Your task to perform on an android device: Go to Wikipedia Image 0: 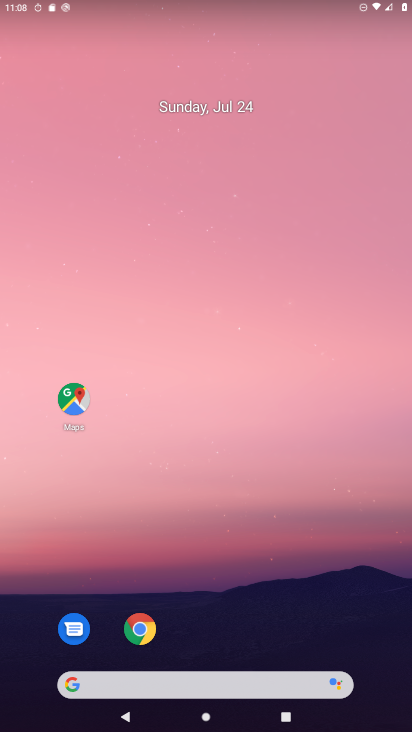
Step 0: drag from (201, 662) to (258, 156)
Your task to perform on an android device: Go to Wikipedia Image 1: 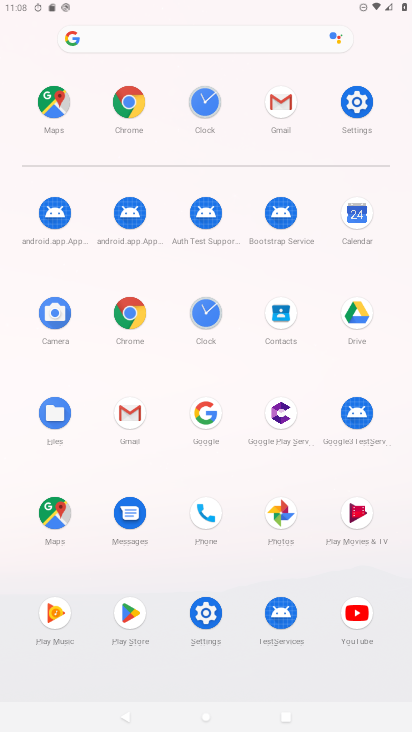
Step 1: click (125, 324)
Your task to perform on an android device: Go to Wikipedia Image 2: 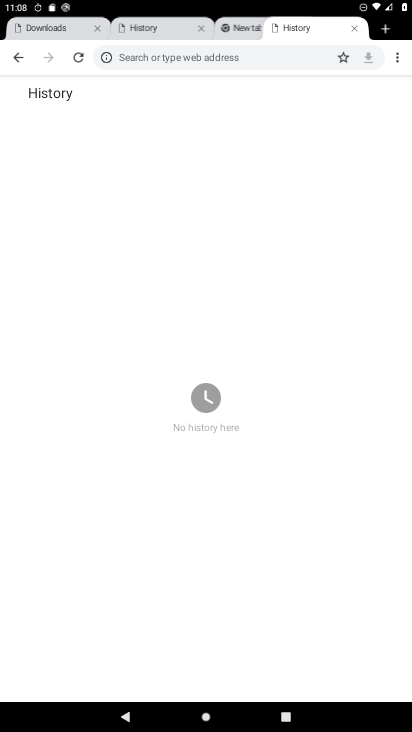
Step 2: click (200, 32)
Your task to perform on an android device: Go to Wikipedia Image 3: 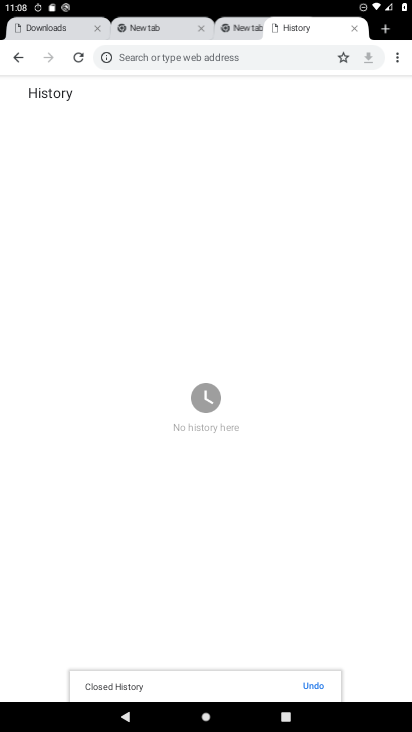
Step 3: click (200, 32)
Your task to perform on an android device: Go to Wikipedia Image 4: 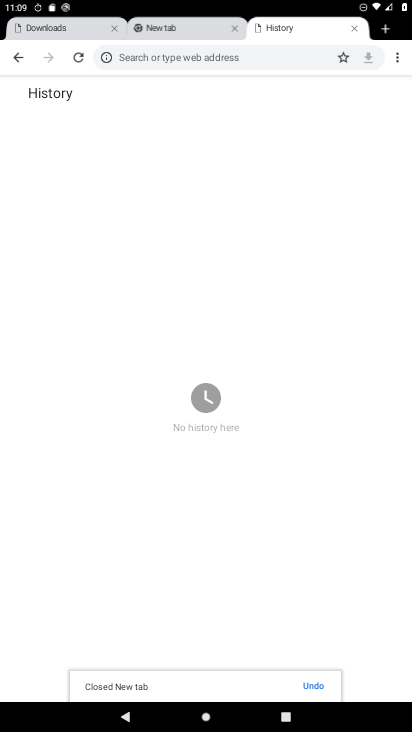
Step 4: click (234, 28)
Your task to perform on an android device: Go to Wikipedia Image 5: 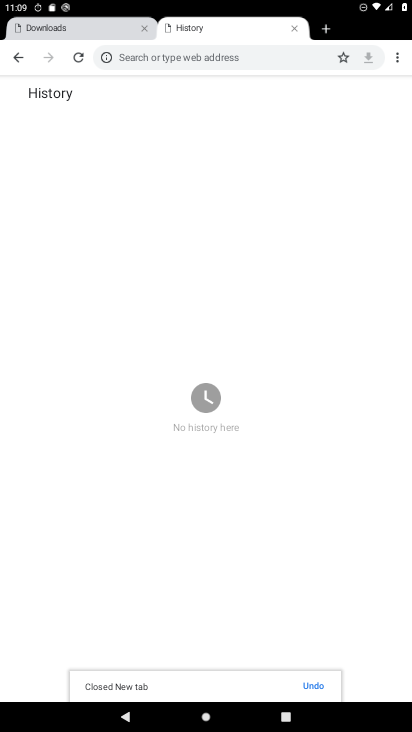
Step 5: click (196, 53)
Your task to perform on an android device: Go to Wikipedia Image 6: 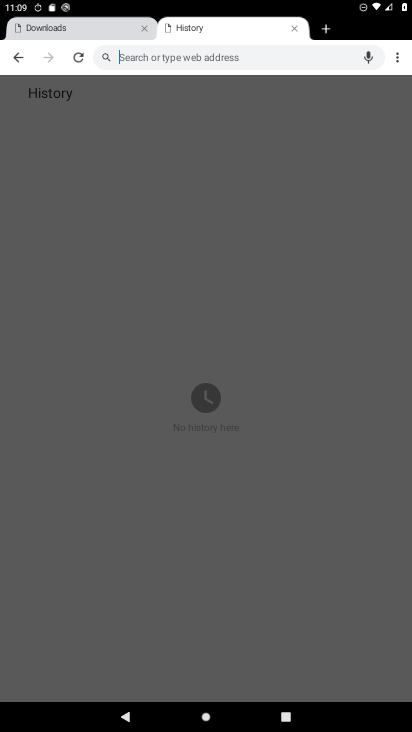
Step 6: type "wikipedia"
Your task to perform on an android device: Go to Wikipedia Image 7: 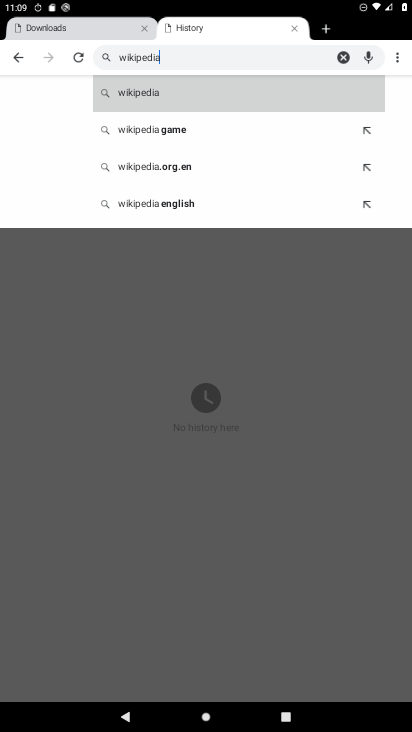
Step 7: click (175, 98)
Your task to perform on an android device: Go to Wikipedia Image 8: 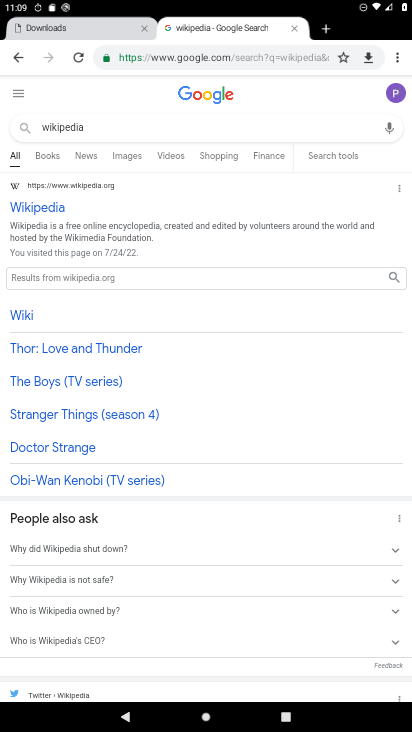
Step 8: click (54, 209)
Your task to perform on an android device: Go to Wikipedia Image 9: 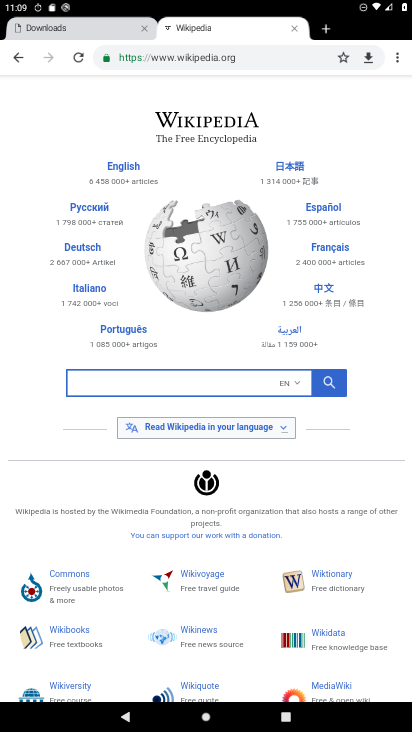
Step 9: task complete